Your task to perform on an android device: Is it going to rain today? Image 0: 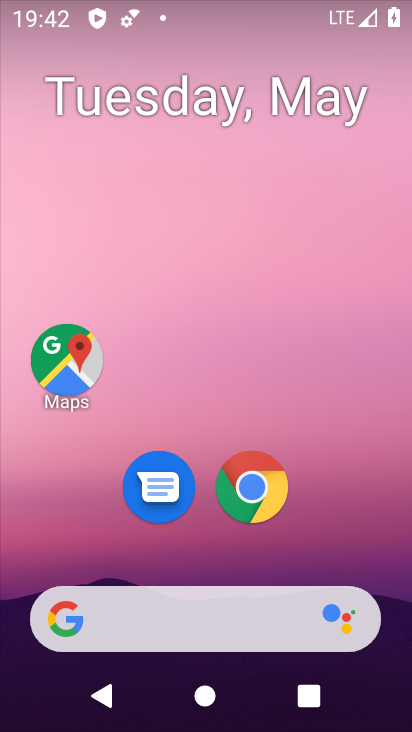
Step 0: click (230, 608)
Your task to perform on an android device: Is it going to rain today? Image 1: 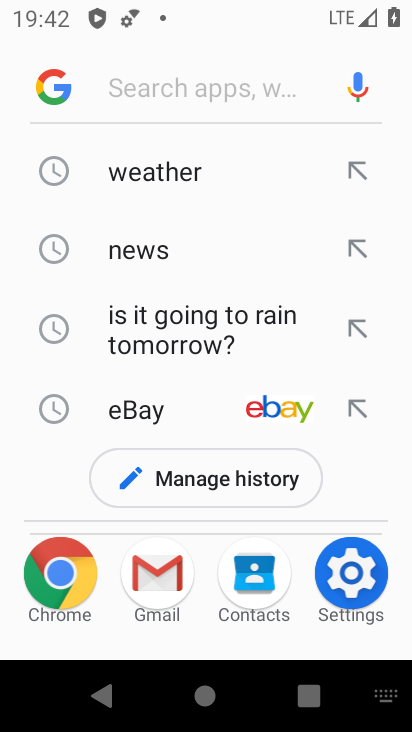
Step 1: click (161, 168)
Your task to perform on an android device: Is it going to rain today? Image 2: 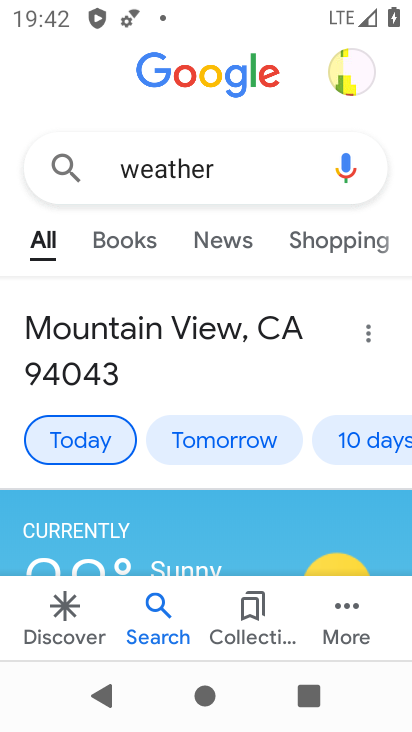
Step 2: task complete